Your task to perform on an android device: toggle airplane mode Image 0: 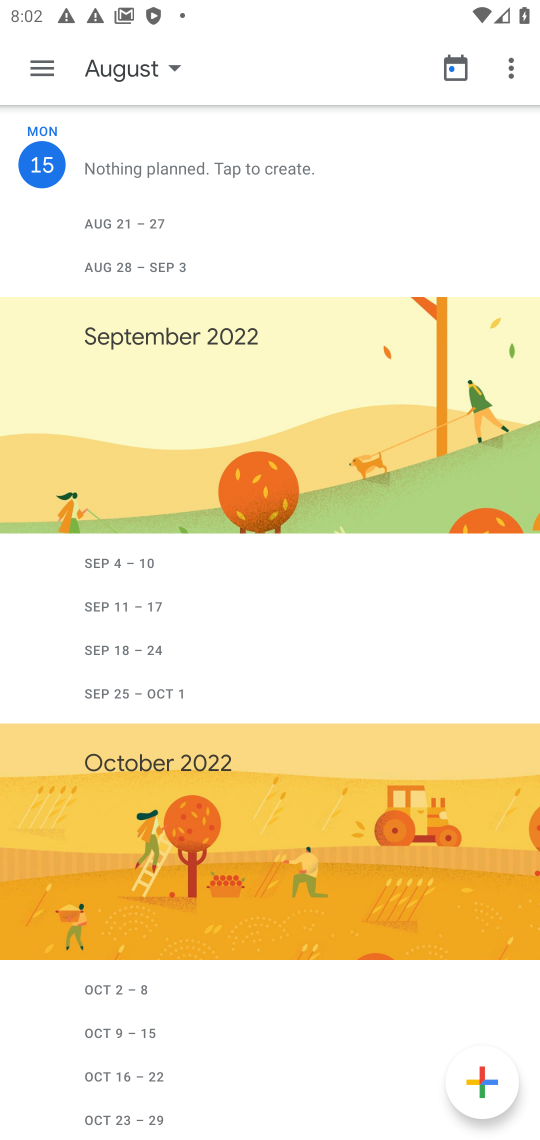
Step 0: drag from (300, 7) to (245, 956)
Your task to perform on an android device: toggle airplane mode Image 1: 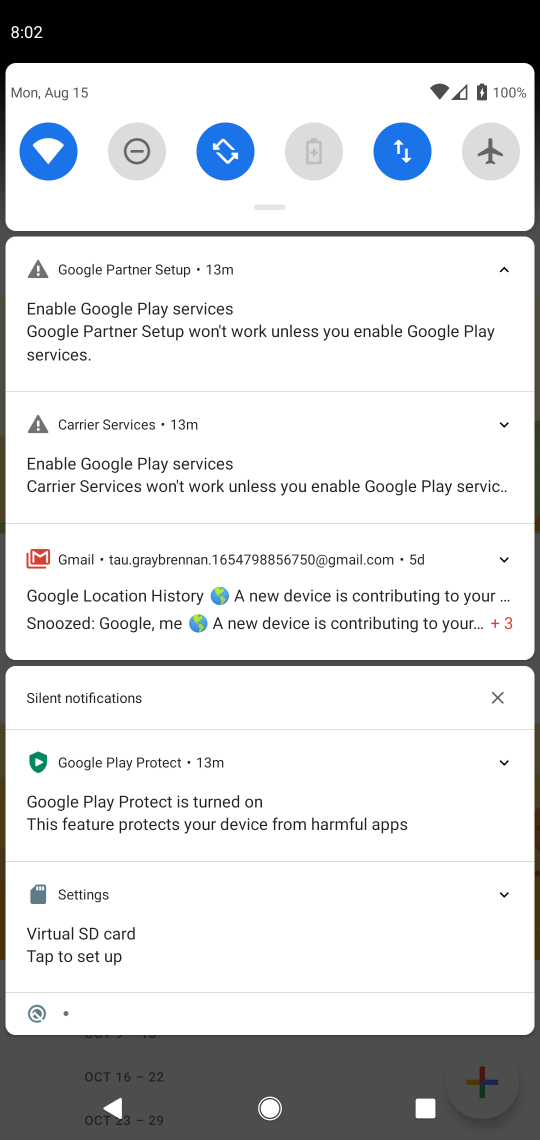
Step 1: click (491, 166)
Your task to perform on an android device: toggle airplane mode Image 2: 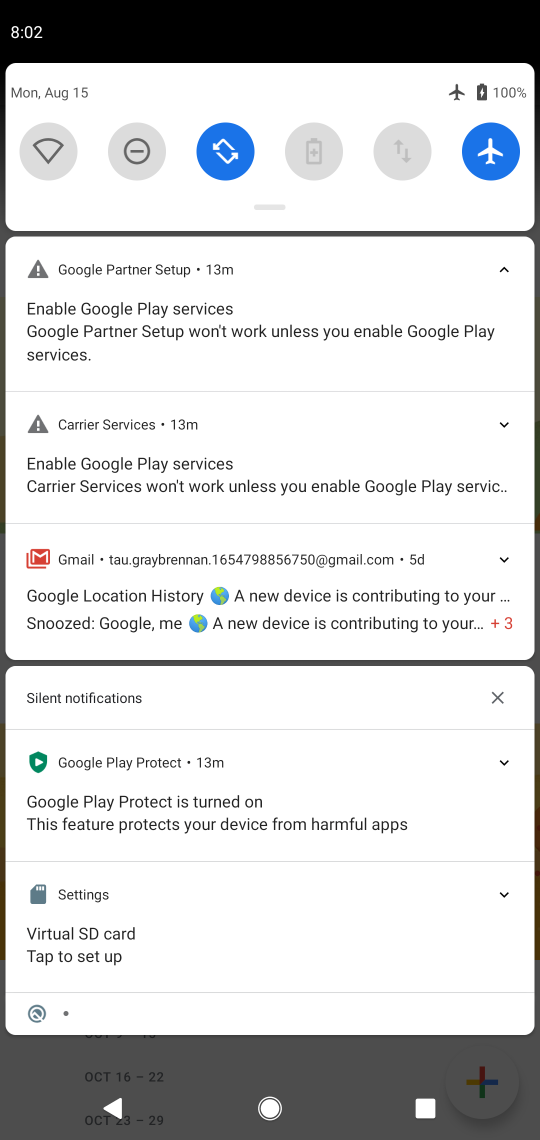
Step 2: click (491, 166)
Your task to perform on an android device: toggle airplane mode Image 3: 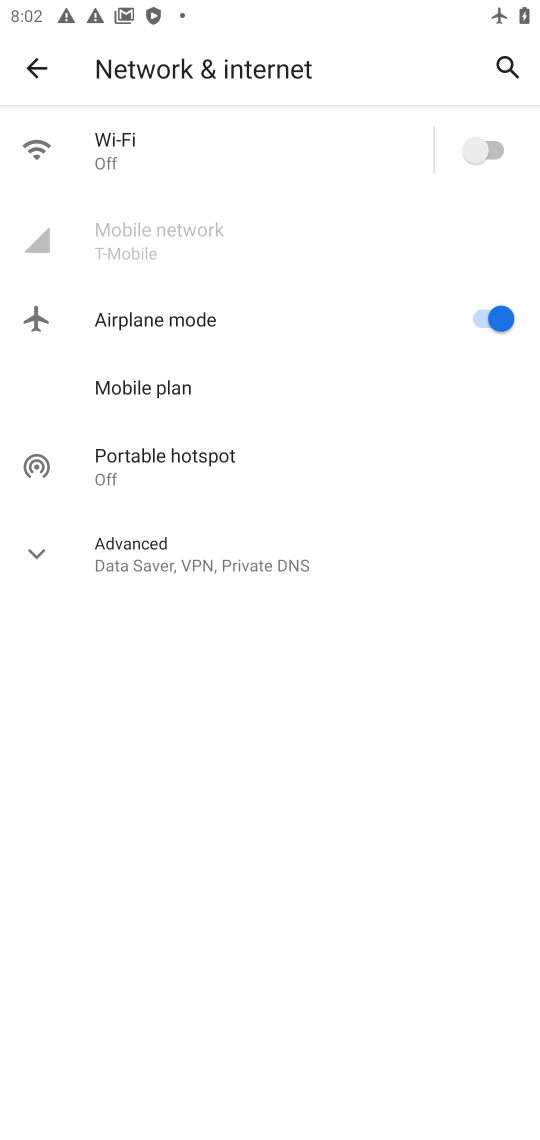
Step 3: click (499, 309)
Your task to perform on an android device: toggle airplane mode Image 4: 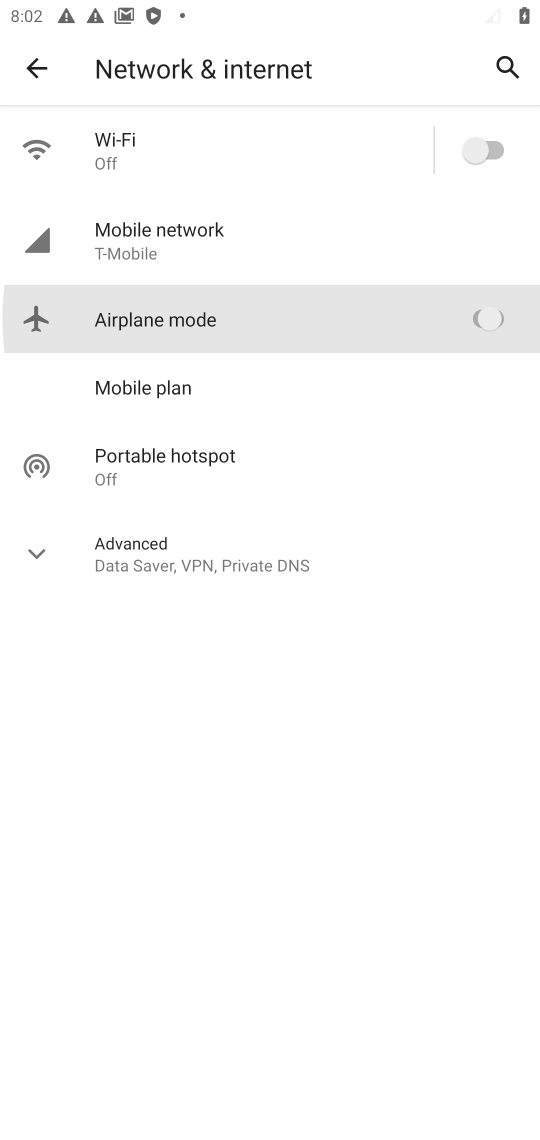
Step 4: click (499, 309)
Your task to perform on an android device: toggle airplane mode Image 5: 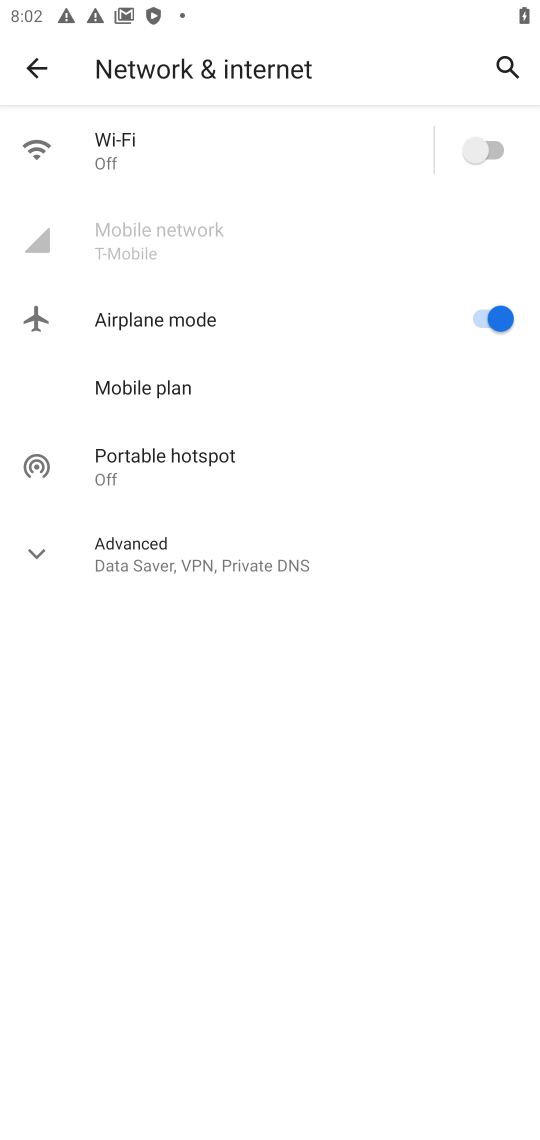
Step 5: click (499, 309)
Your task to perform on an android device: toggle airplane mode Image 6: 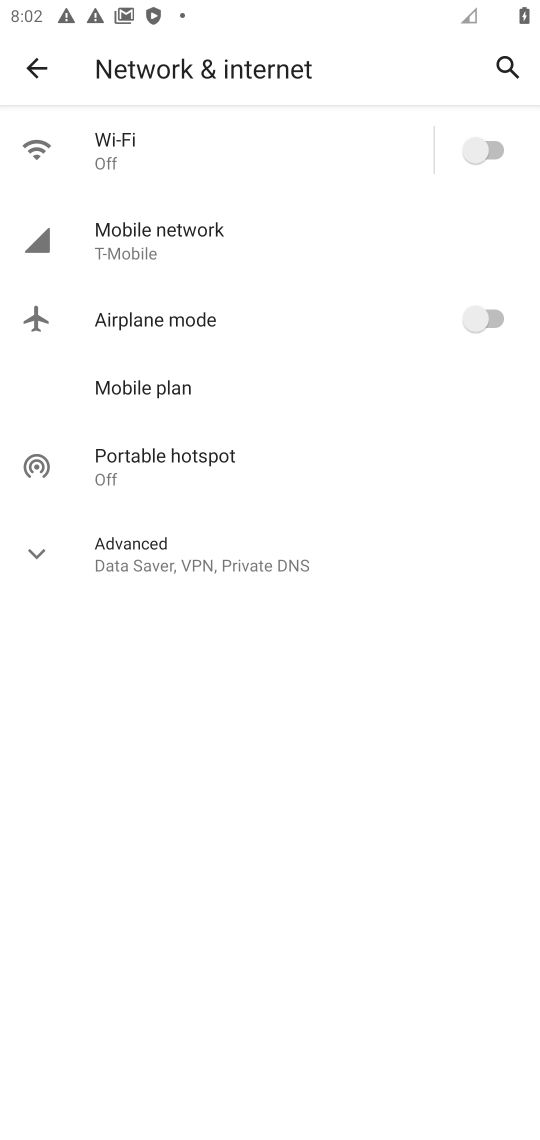
Step 6: click (499, 309)
Your task to perform on an android device: toggle airplane mode Image 7: 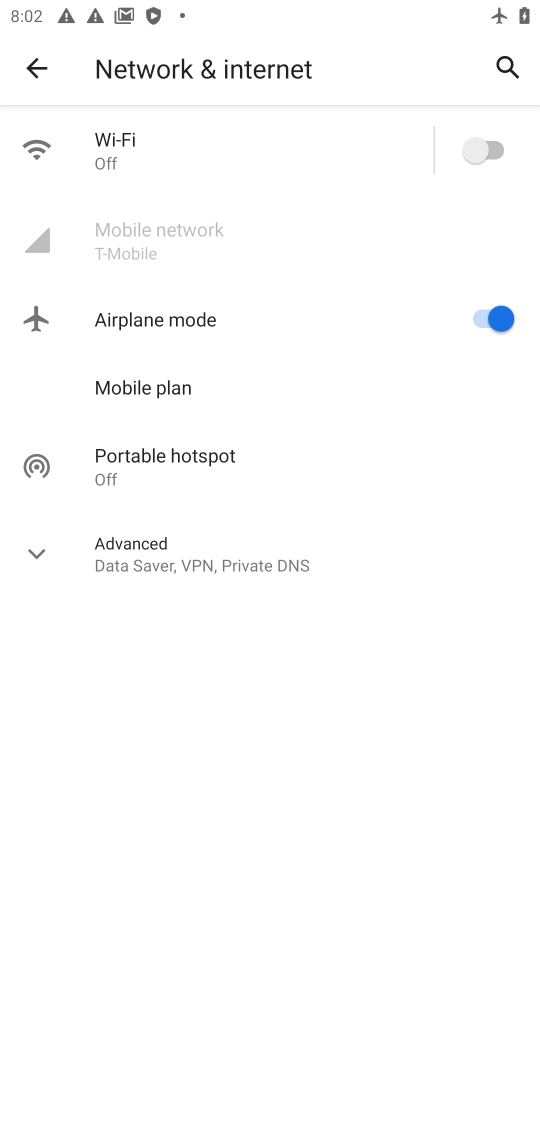
Step 7: click (489, 316)
Your task to perform on an android device: toggle airplane mode Image 8: 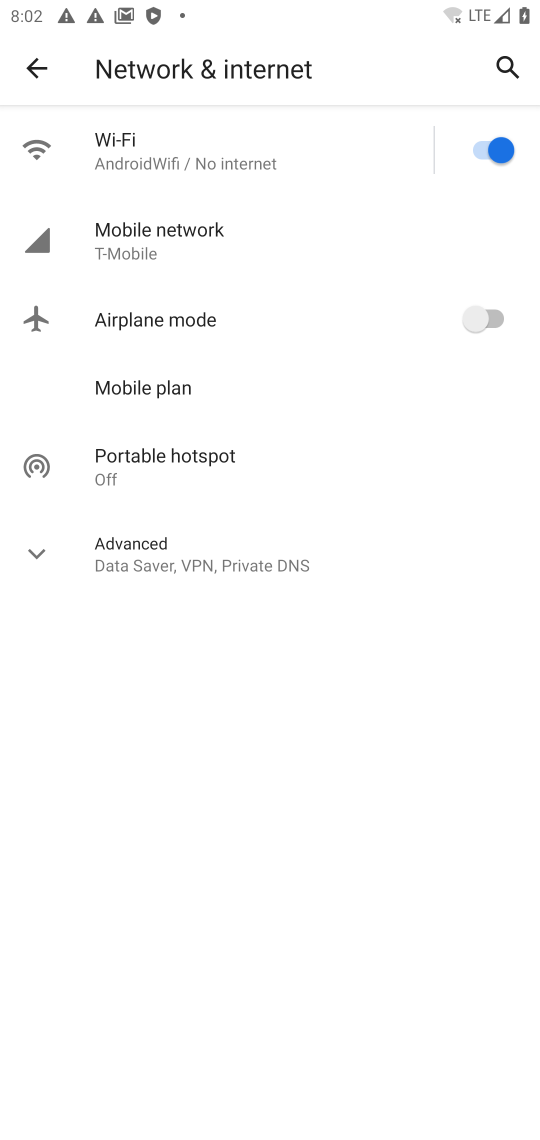
Step 8: task complete